Your task to perform on an android device: turn off javascript in the chrome app Image 0: 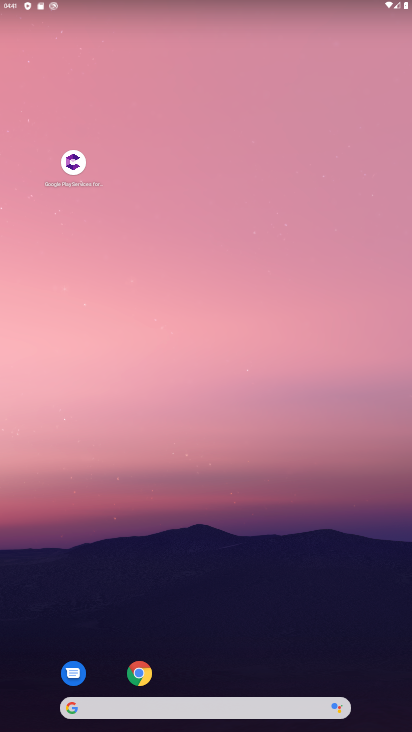
Step 0: click (134, 670)
Your task to perform on an android device: turn off javascript in the chrome app Image 1: 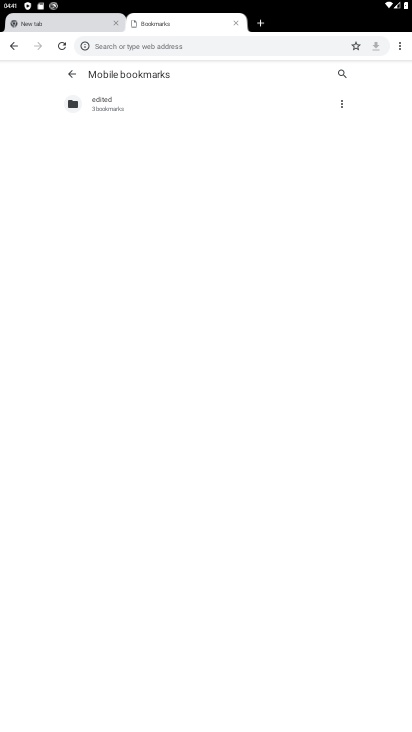
Step 1: click (401, 48)
Your task to perform on an android device: turn off javascript in the chrome app Image 2: 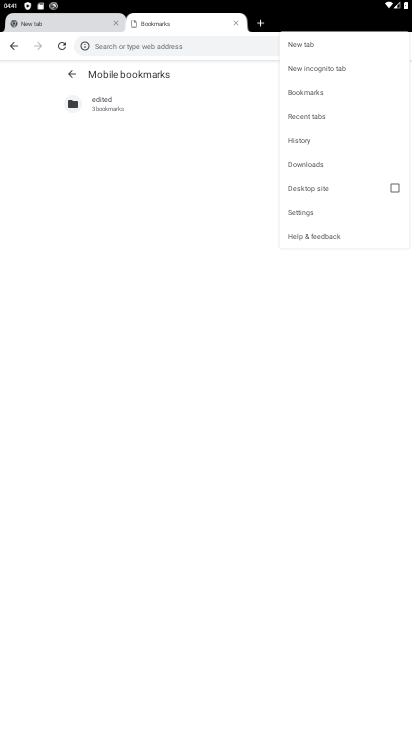
Step 2: click (308, 215)
Your task to perform on an android device: turn off javascript in the chrome app Image 3: 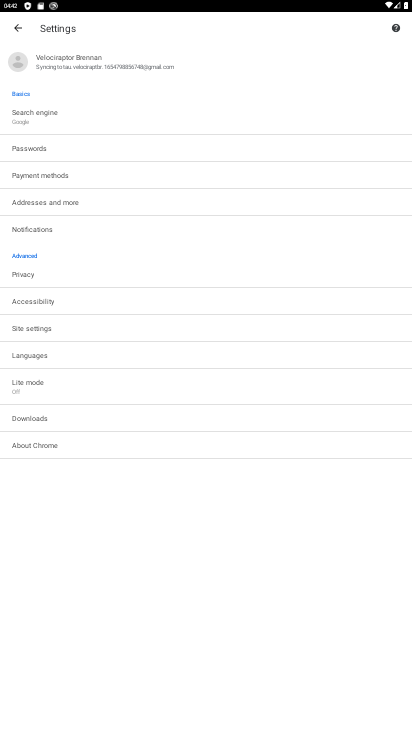
Step 3: click (45, 327)
Your task to perform on an android device: turn off javascript in the chrome app Image 4: 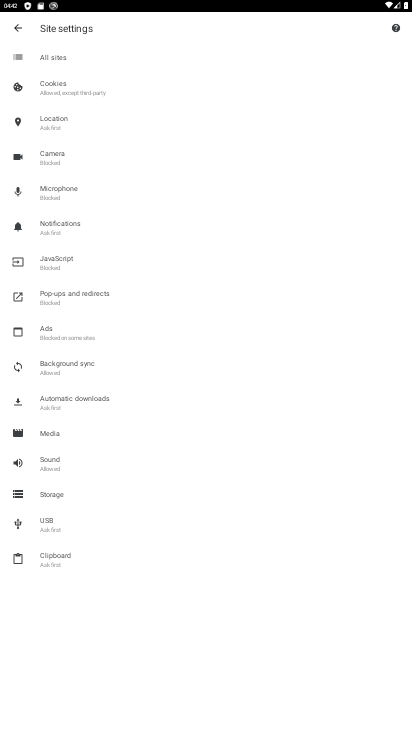
Step 4: click (69, 262)
Your task to perform on an android device: turn off javascript in the chrome app Image 5: 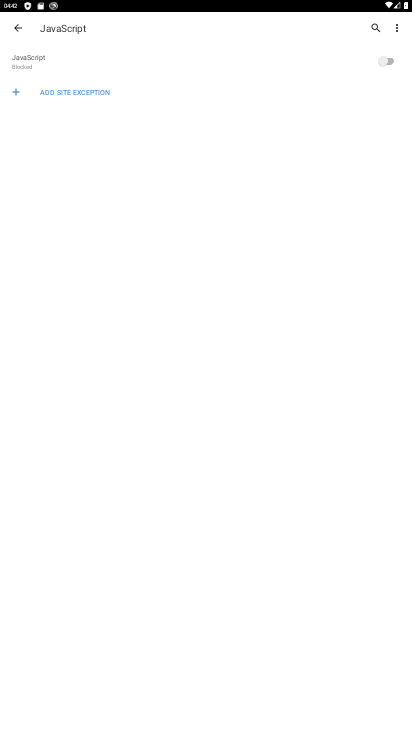
Step 5: click (399, 55)
Your task to perform on an android device: turn off javascript in the chrome app Image 6: 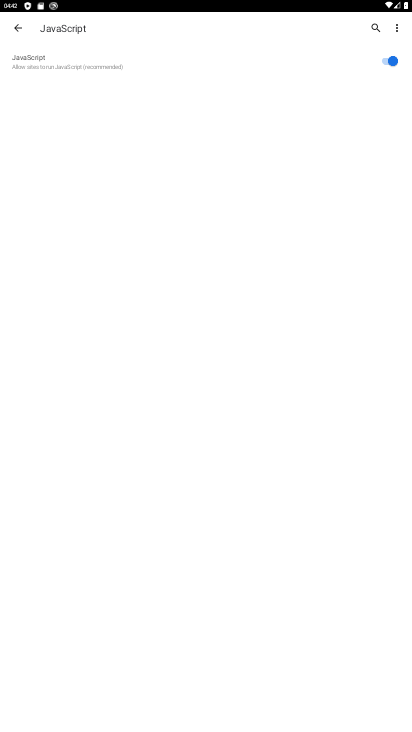
Step 6: task complete